Your task to perform on an android device: open the mobile data screen to see how much data has been used Image 0: 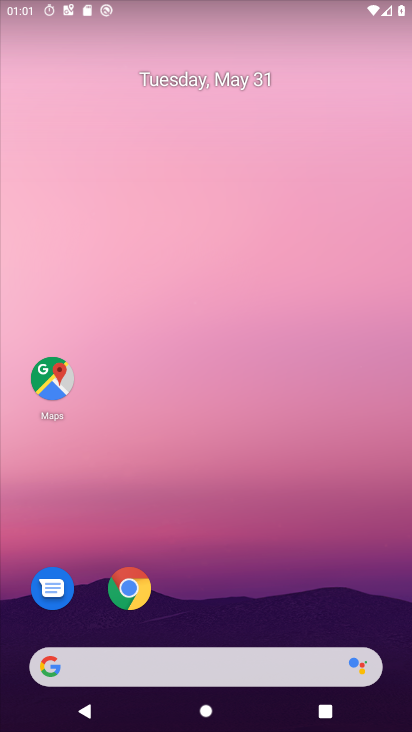
Step 0: click (162, 658)
Your task to perform on an android device: open the mobile data screen to see how much data has been used Image 1: 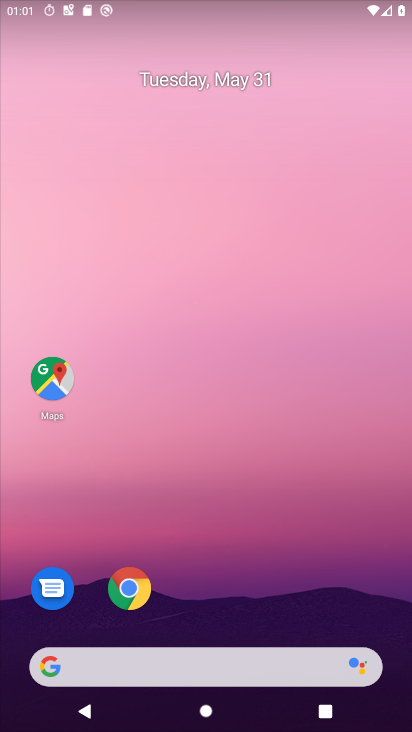
Step 1: drag from (159, 621) to (129, 171)
Your task to perform on an android device: open the mobile data screen to see how much data has been used Image 2: 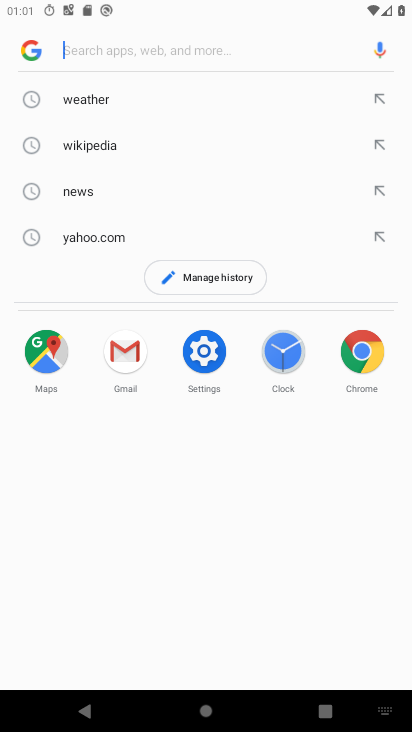
Step 2: press home button
Your task to perform on an android device: open the mobile data screen to see how much data has been used Image 3: 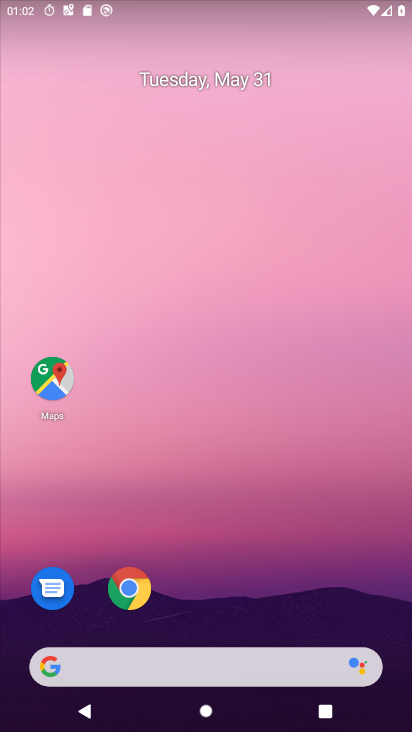
Step 3: drag from (300, 665) to (300, 33)
Your task to perform on an android device: open the mobile data screen to see how much data has been used Image 4: 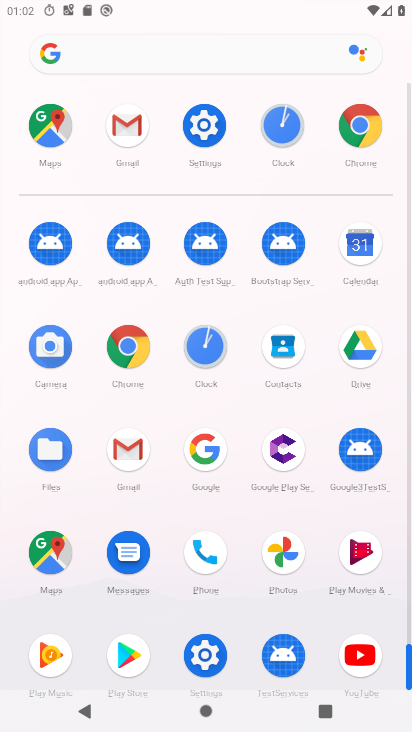
Step 4: click (191, 126)
Your task to perform on an android device: open the mobile data screen to see how much data has been used Image 5: 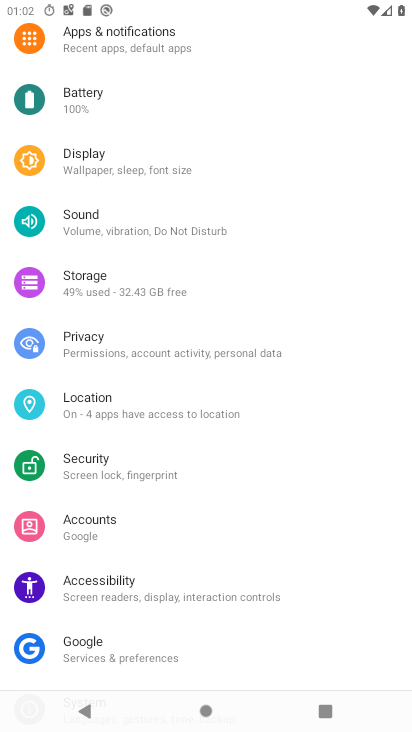
Step 5: drag from (251, 288) to (293, 697)
Your task to perform on an android device: open the mobile data screen to see how much data has been used Image 6: 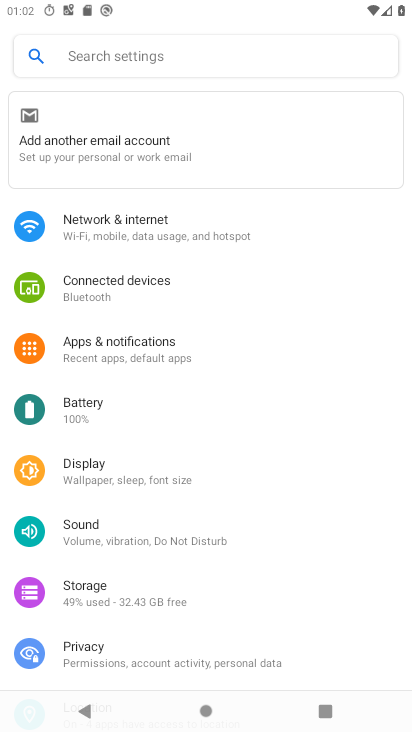
Step 6: click (186, 224)
Your task to perform on an android device: open the mobile data screen to see how much data has been used Image 7: 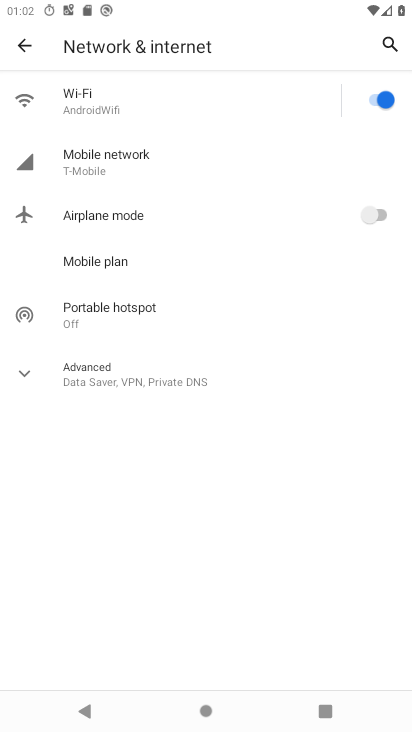
Step 7: task complete